Your task to perform on an android device: Open Google Chrome Image 0: 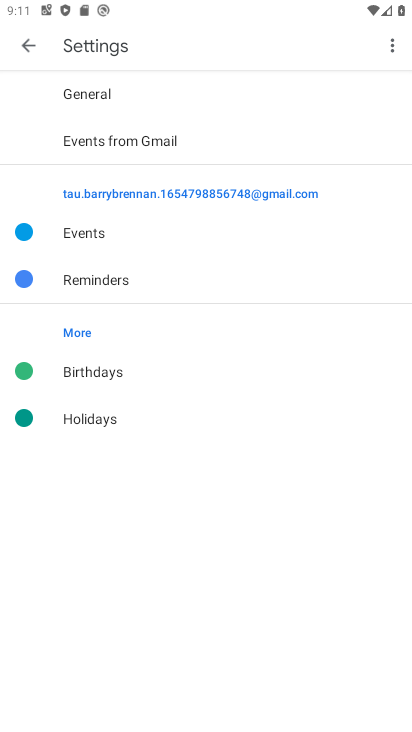
Step 0: press home button
Your task to perform on an android device: Open Google Chrome Image 1: 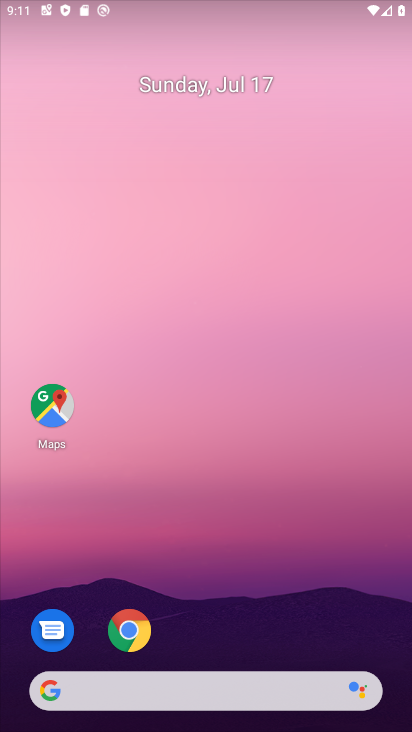
Step 1: drag from (312, 681) to (303, 9)
Your task to perform on an android device: Open Google Chrome Image 2: 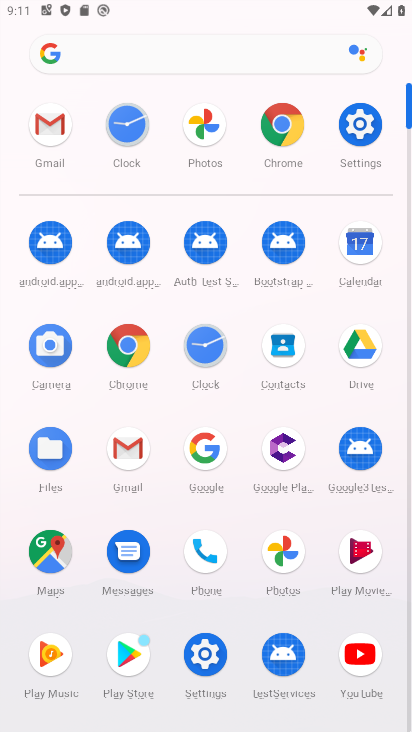
Step 2: click (132, 341)
Your task to perform on an android device: Open Google Chrome Image 3: 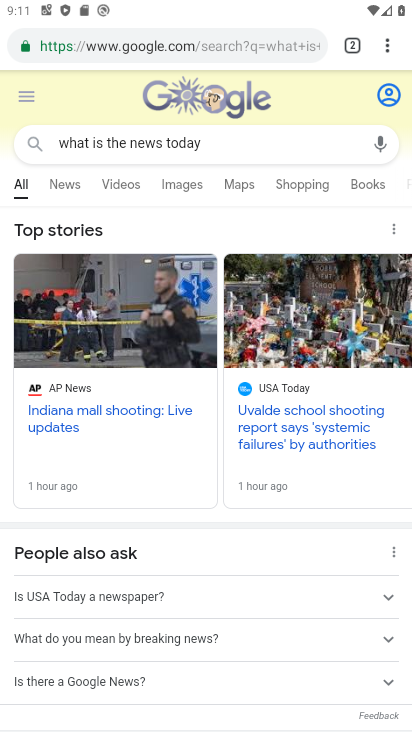
Step 3: click (388, 43)
Your task to perform on an android device: Open Google Chrome Image 4: 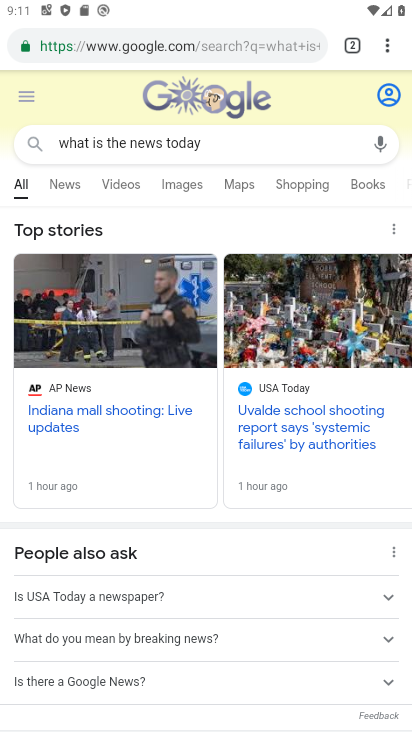
Step 4: task complete